Your task to perform on an android device: allow cookies in the chrome app Image 0: 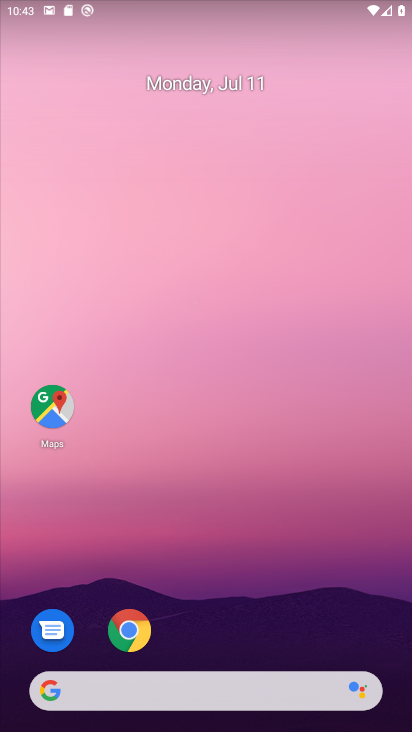
Step 0: drag from (240, 593) to (231, 176)
Your task to perform on an android device: allow cookies in the chrome app Image 1: 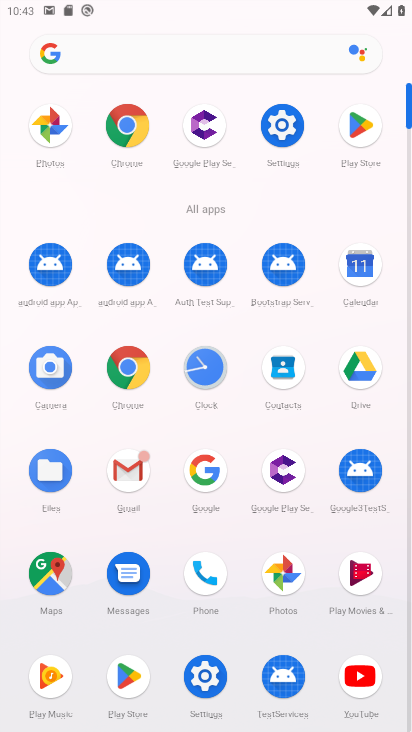
Step 1: click (133, 135)
Your task to perform on an android device: allow cookies in the chrome app Image 2: 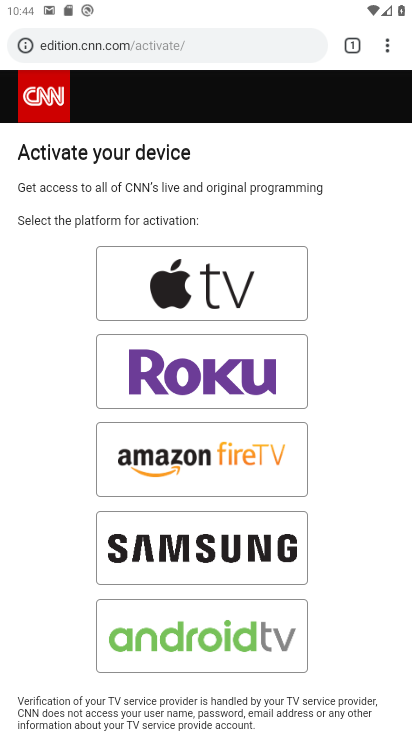
Step 2: click (391, 44)
Your task to perform on an android device: allow cookies in the chrome app Image 3: 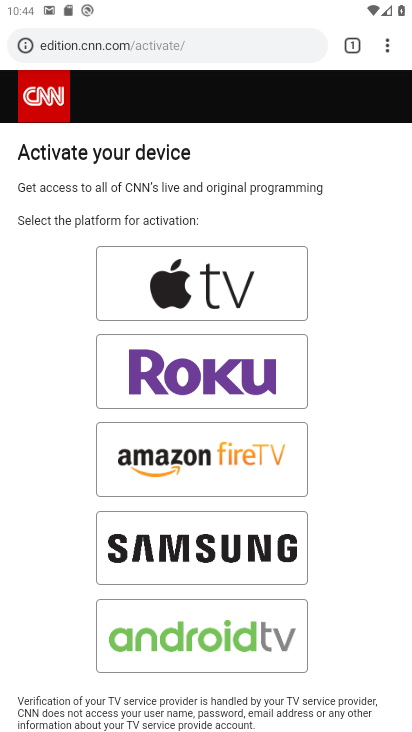
Step 3: click (385, 43)
Your task to perform on an android device: allow cookies in the chrome app Image 4: 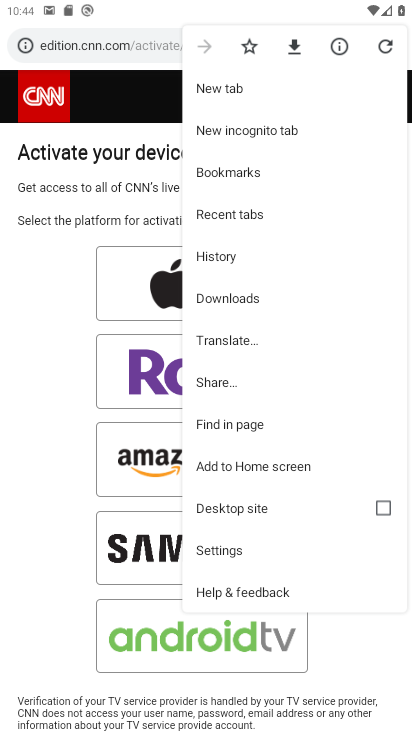
Step 4: click (234, 552)
Your task to perform on an android device: allow cookies in the chrome app Image 5: 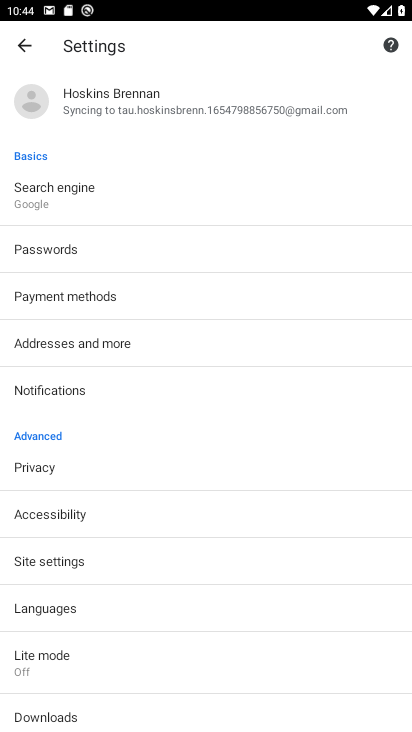
Step 5: click (66, 554)
Your task to perform on an android device: allow cookies in the chrome app Image 6: 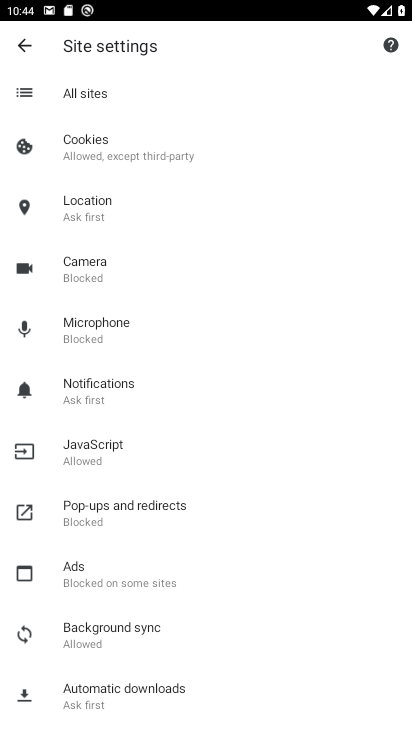
Step 6: click (111, 156)
Your task to perform on an android device: allow cookies in the chrome app Image 7: 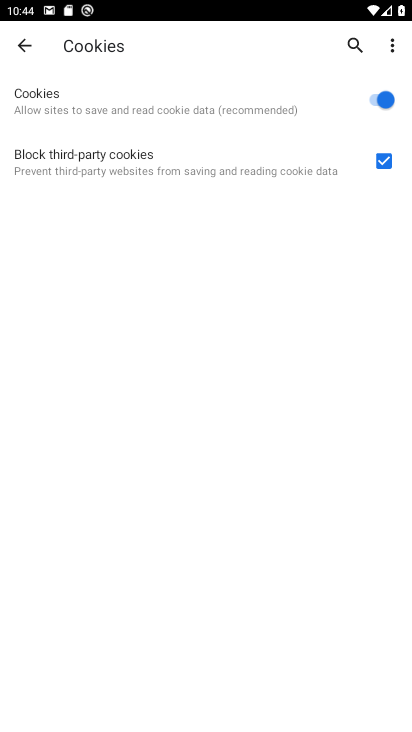
Step 7: task complete